Your task to perform on an android device: Search for Italian restaurants on Maps Image 0: 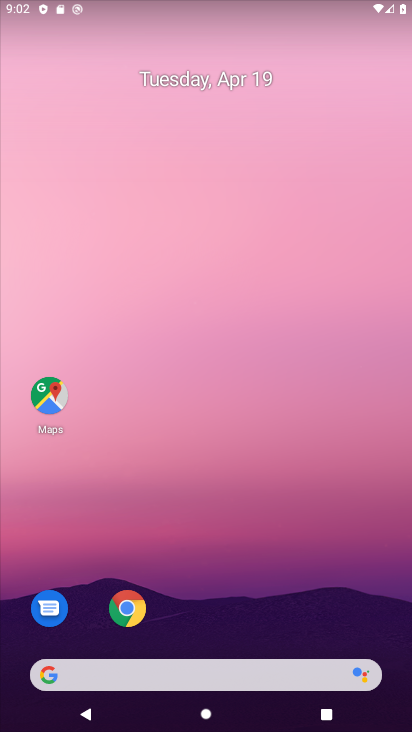
Step 0: drag from (197, 606) to (303, 19)
Your task to perform on an android device: Search for Italian restaurants on Maps Image 1: 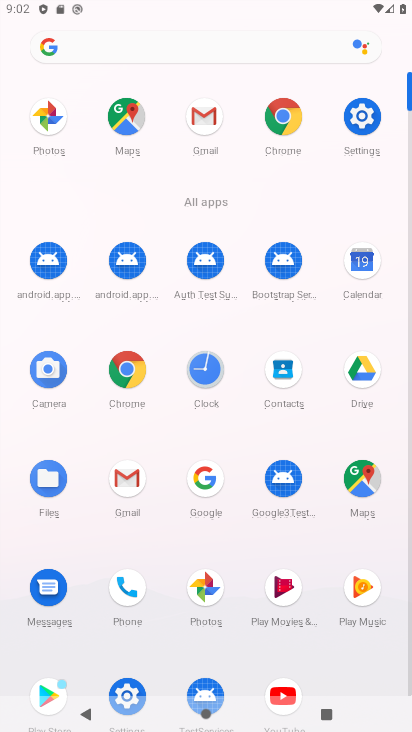
Step 1: click (364, 489)
Your task to perform on an android device: Search for Italian restaurants on Maps Image 2: 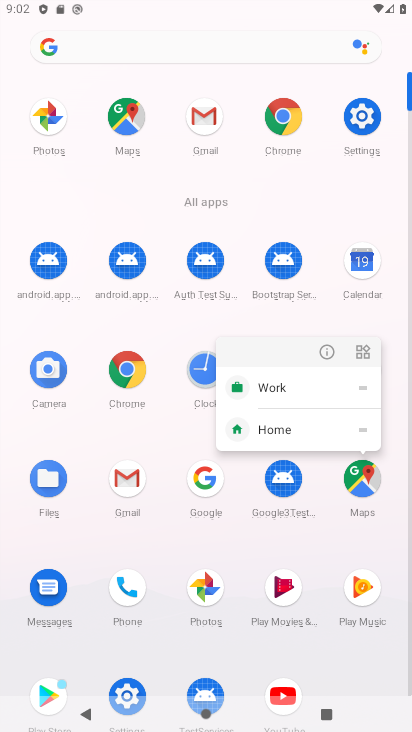
Step 2: click (350, 476)
Your task to perform on an android device: Search for Italian restaurants on Maps Image 3: 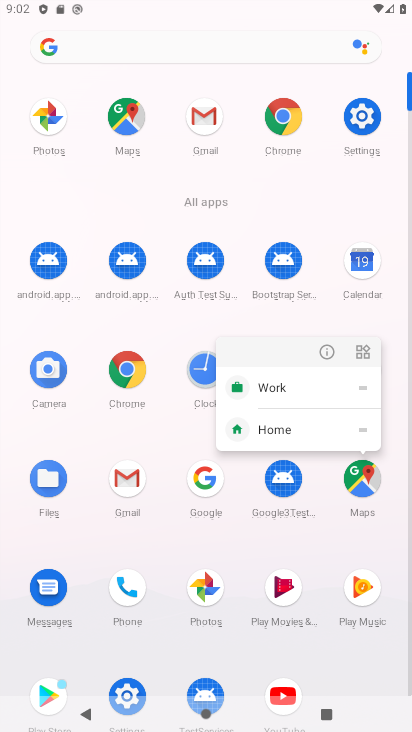
Step 3: click (369, 476)
Your task to perform on an android device: Search for Italian restaurants on Maps Image 4: 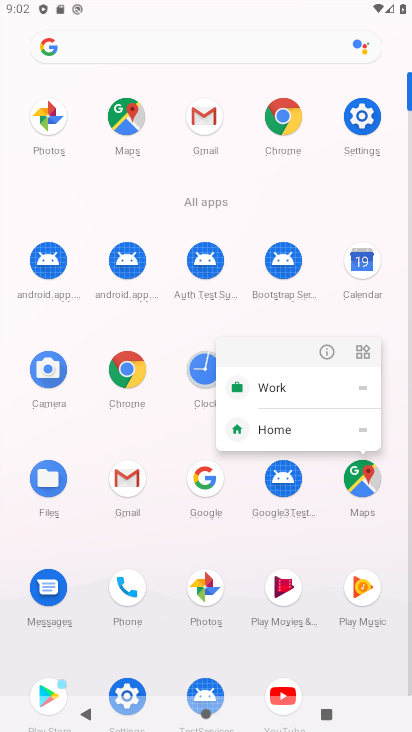
Step 4: click (364, 472)
Your task to perform on an android device: Search for Italian restaurants on Maps Image 5: 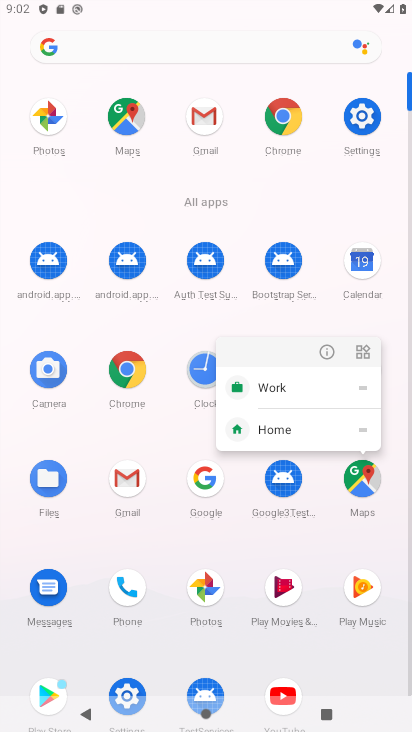
Step 5: click (369, 491)
Your task to perform on an android device: Search for Italian restaurants on Maps Image 6: 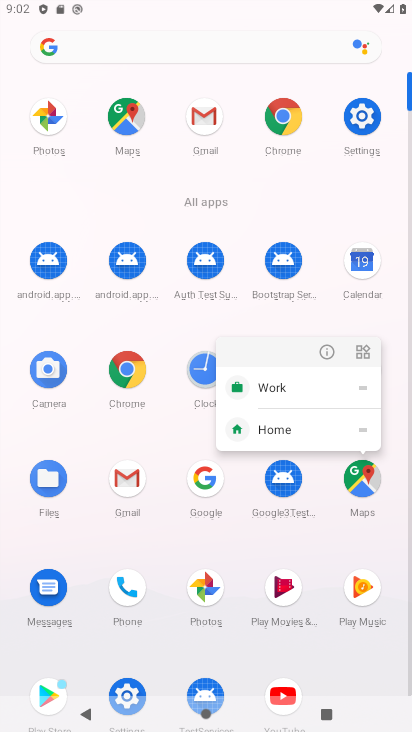
Step 6: click (368, 484)
Your task to perform on an android device: Search for Italian restaurants on Maps Image 7: 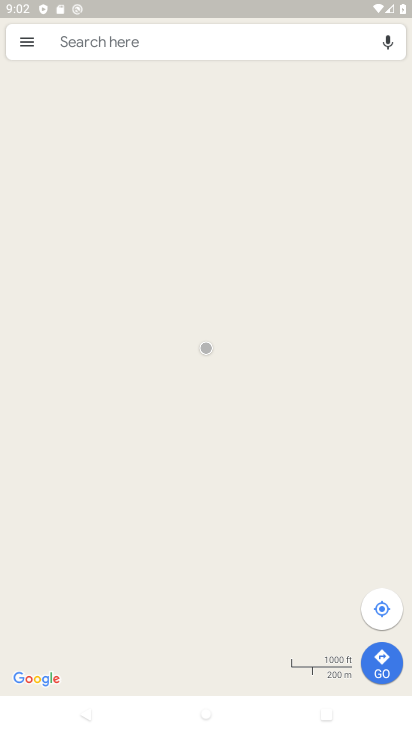
Step 7: click (169, 45)
Your task to perform on an android device: Search for Italian restaurants on Maps Image 8: 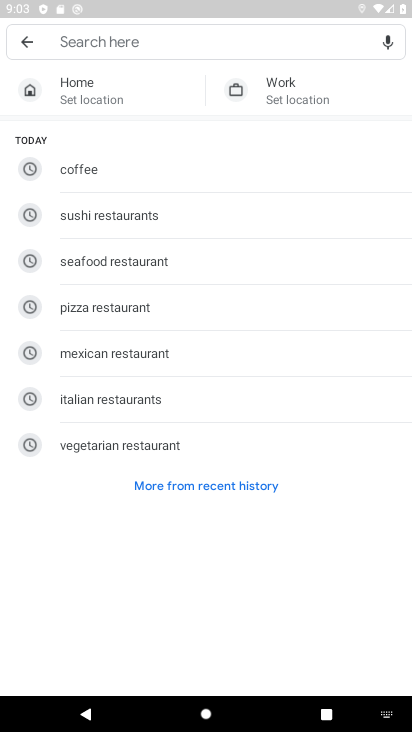
Step 8: type "Italian restaurants "
Your task to perform on an android device: Search for Italian restaurants on Maps Image 9: 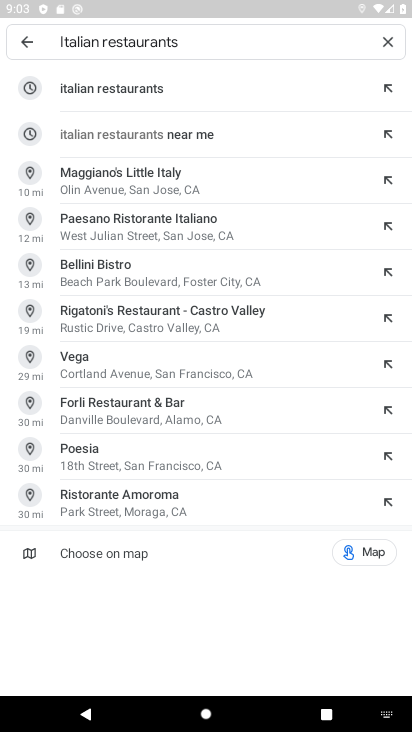
Step 9: click (215, 98)
Your task to perform on an android device: Search for Italian restaurants on Maps Image 10: 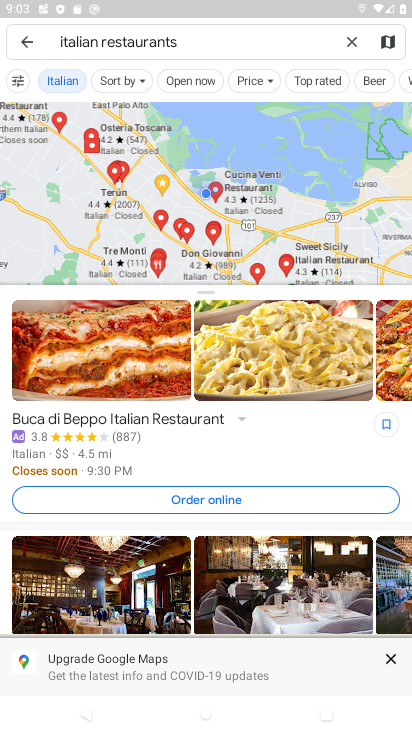
Step 10: click (393, 658)
Your task to perform on an android device: Search for Italian restaurants on Maps Image 11: 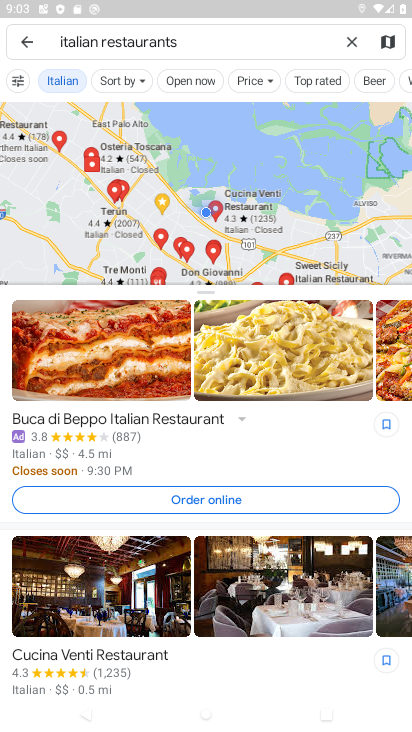
Step 11: task complete